Your task to perform on an android device: What's the weather? Image 0: 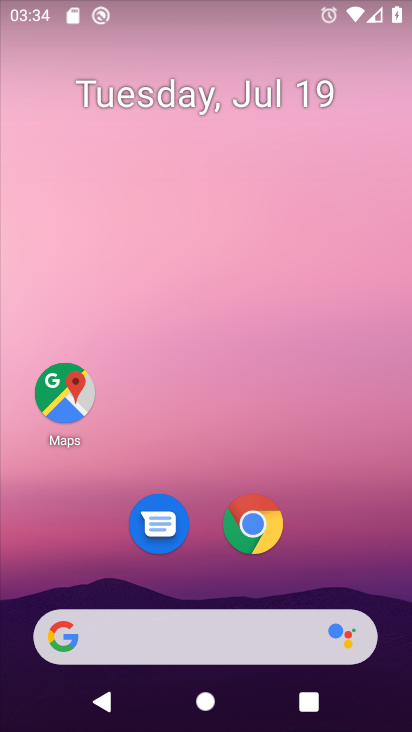
Step 0: drag from (249, 426) to (247, 19)
Your task to perform on an android device: What's the weather? Image 1: 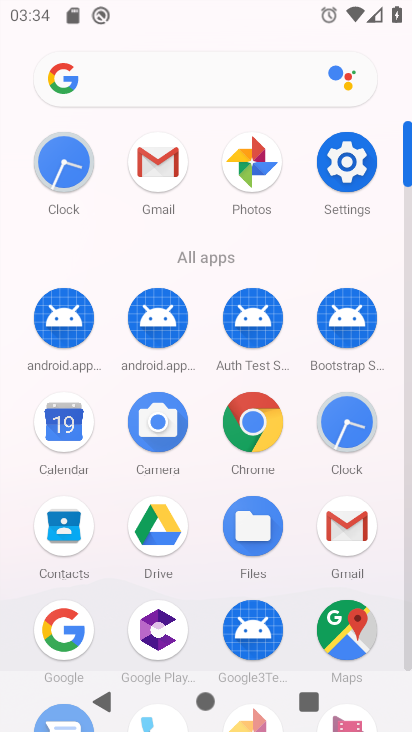
Step 1: click (207, 84)
Your task to perform on an android device: What's the weather? Image 2: 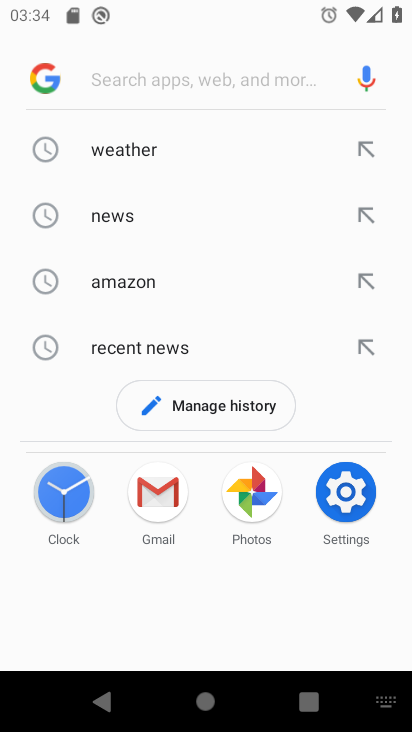
Step 2: click (144, 145)
Your task to perform on an android device: What's the weather? Image 3: 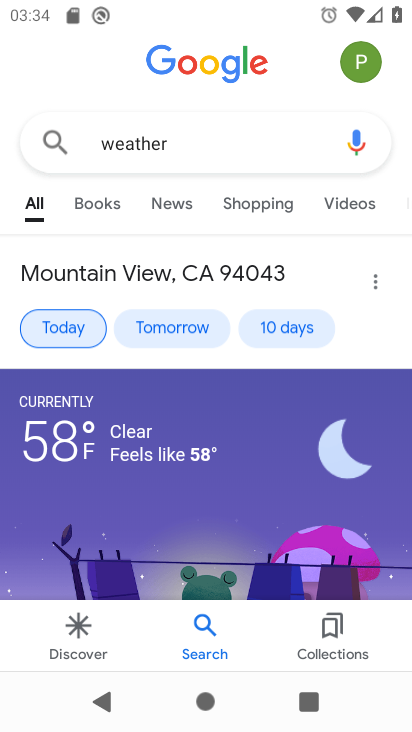
Step 3: click (70, 332)
Your task to perform on an android device: What's the weather? Image 4: 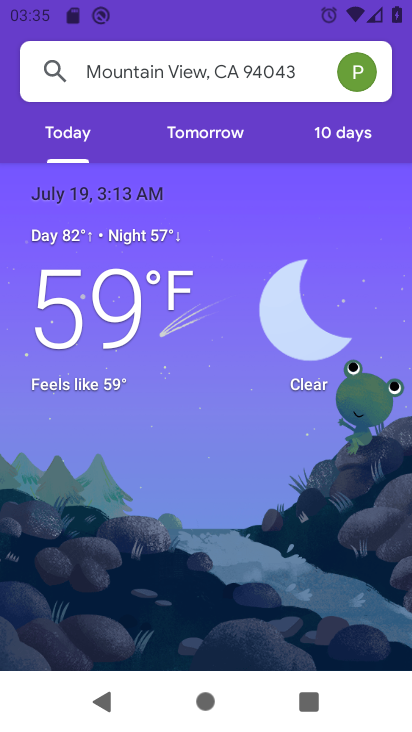
Step 4: task complete